Your task to perform on an android device: Open battery settings Image 0: 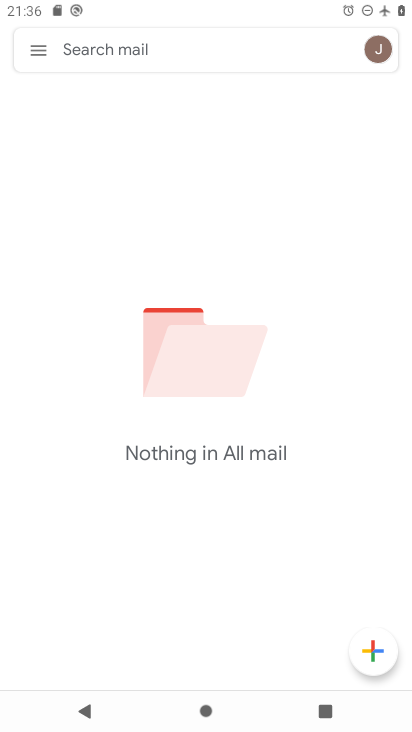
Step 0: press home button
Your task to perform on an android device: Open battery settings Image 1: 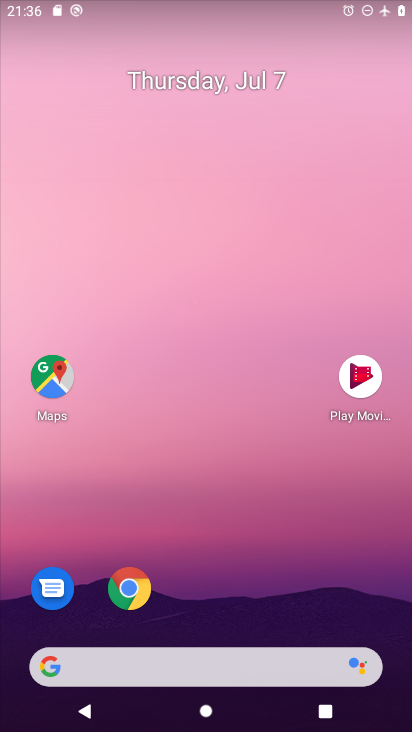
Step 1: drag from (231, 646) to (236, 209)
Your task to perform on an android device: Open battery settings Image 2: 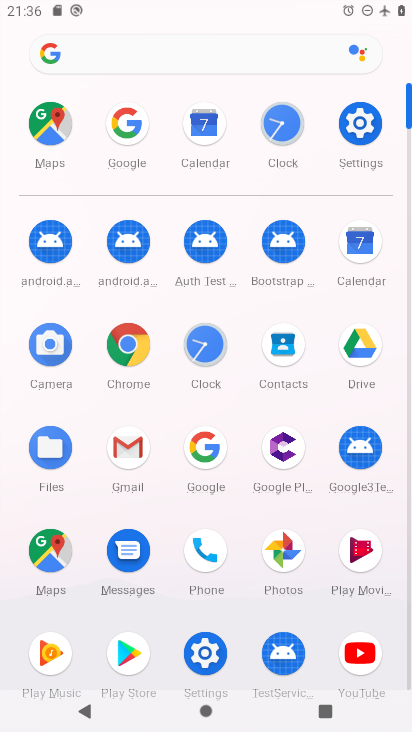
Step 2: click (341, 118)
Your task to perform on an android device: Open battery settings Image 3: 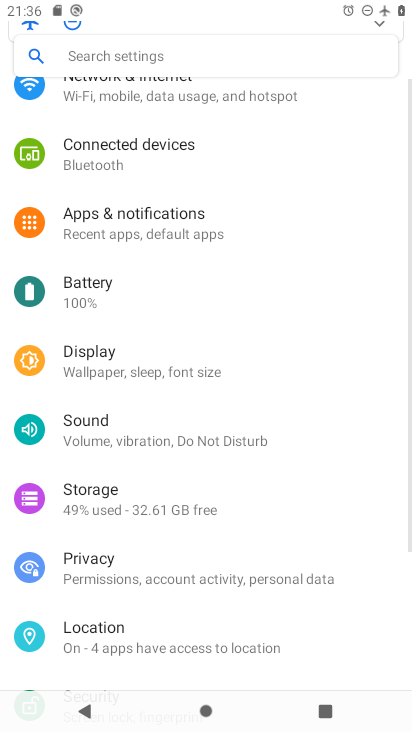
Step 3: click (117, 281)
Your task to perform on an android device: Open battery settings Image 4: 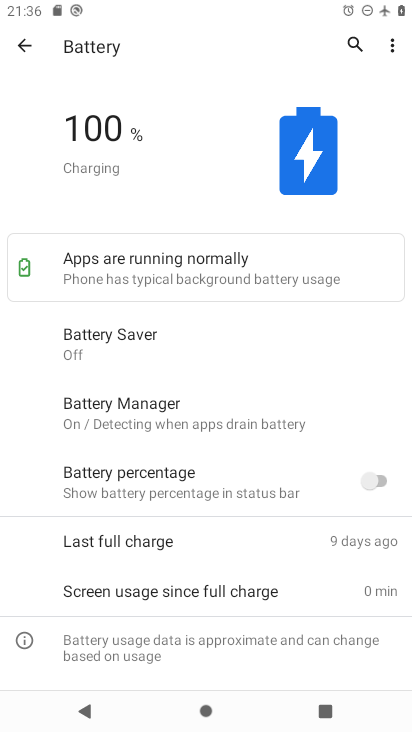
Step 4: task complete